Your task to perform on an android device: toggle notification dots Image 0: 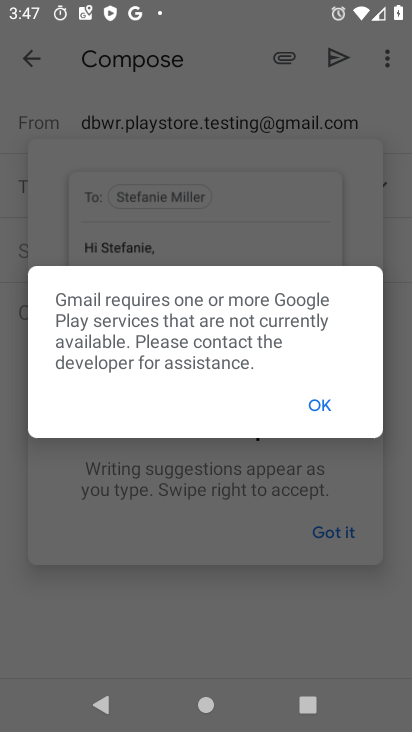
Step 0: press home button
Your task to perform on an android device: toggle notification dots Image 1: 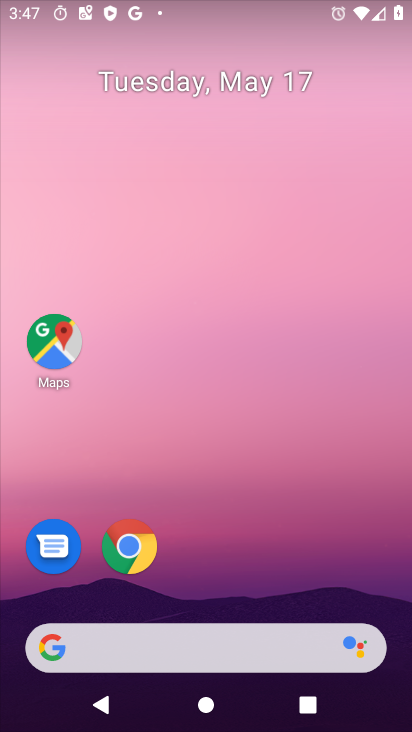
Step 1: click (411, 353)
Your task to perform on an android device: toggle notification dots Image 2: 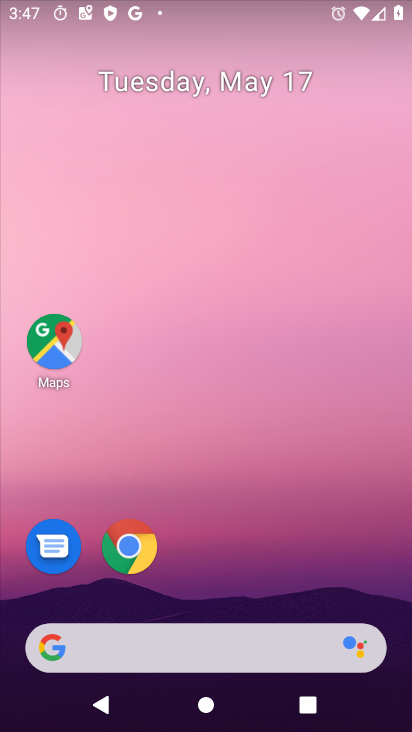
Step 2: drag from (391, 698) to (404, 333)
Your task to perform on an android device: toggle notification dots Image 3: 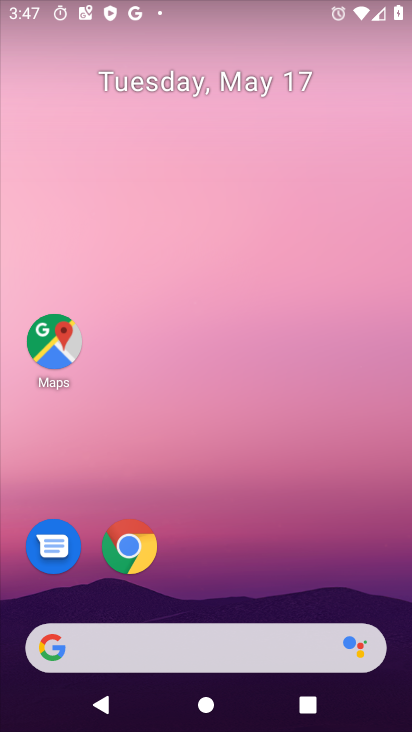
Step 3: drag from (404, 665) to (393, 408)
Your task to perform on an android device: toggle notification dots Image 4: 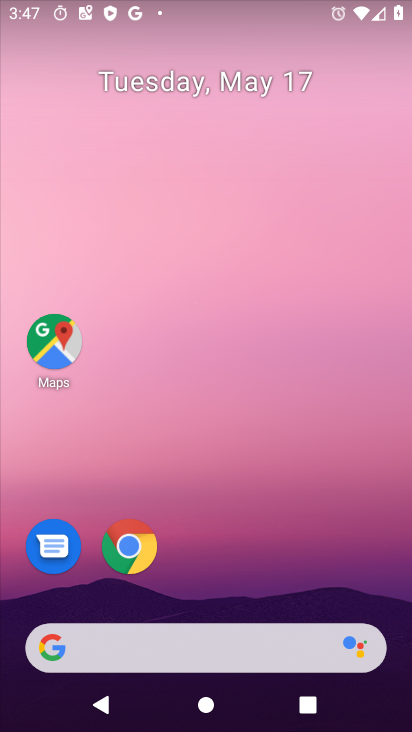
Step 4: drag from (404, 606) to (401, 261)
Your task to perform on an android device: toggle notification dots Image 5: 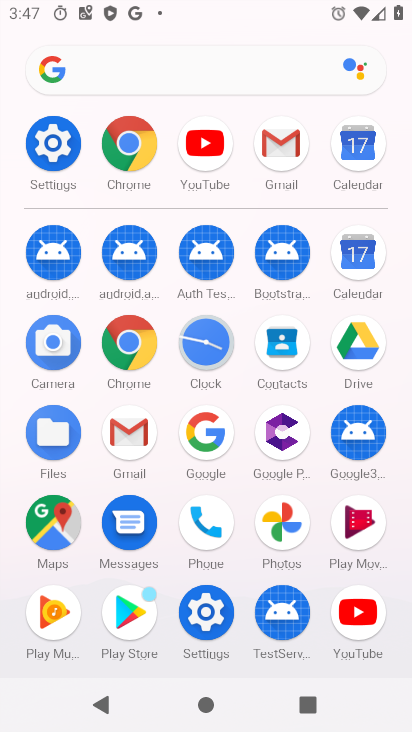
Step 5: click (58, 139)
Your task to perform on an android device: toggle notification dots Image 6: 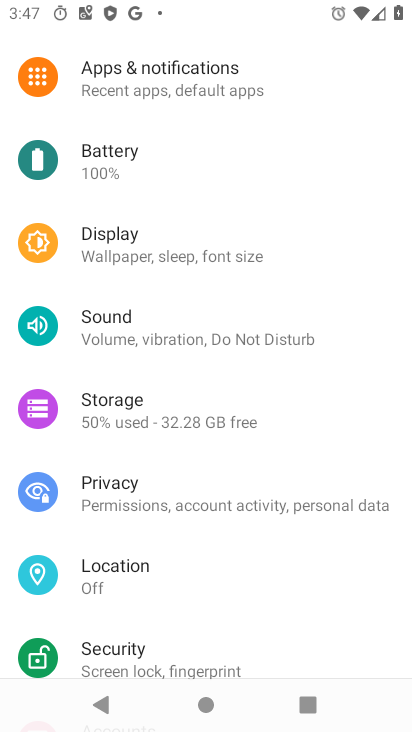
Step 6: click (141, 88)
Your task to perform on an android device: toggle notification dots Image 7: 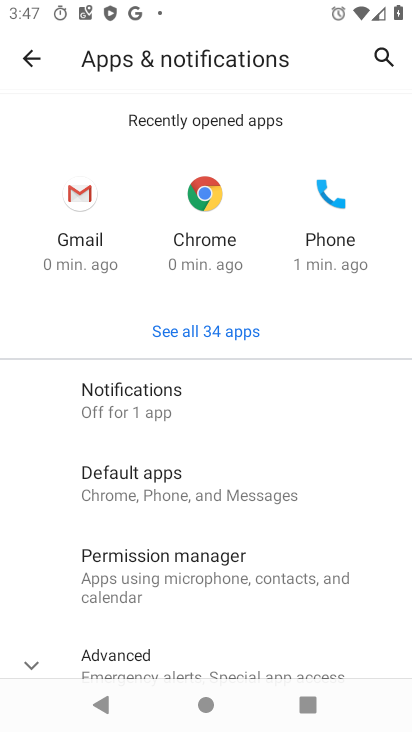
Step 7: click (114, 401)
Your task to perform on an android device: toggle notification dots Image 8: 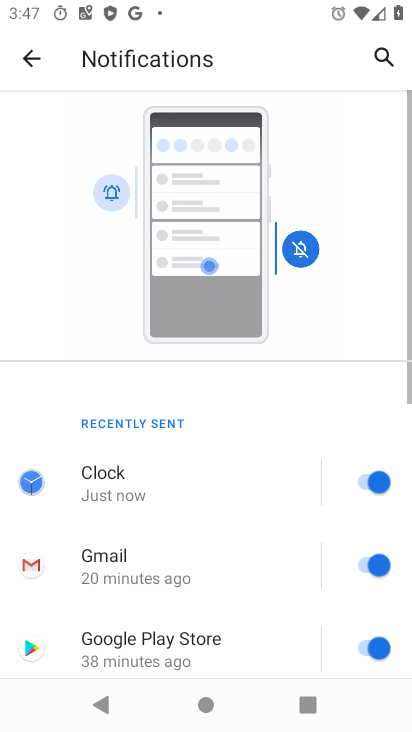
Step 8: drag from (291, 565) to (292, 201)
Your task to perform on an android device: toggle notification dots Image 9: 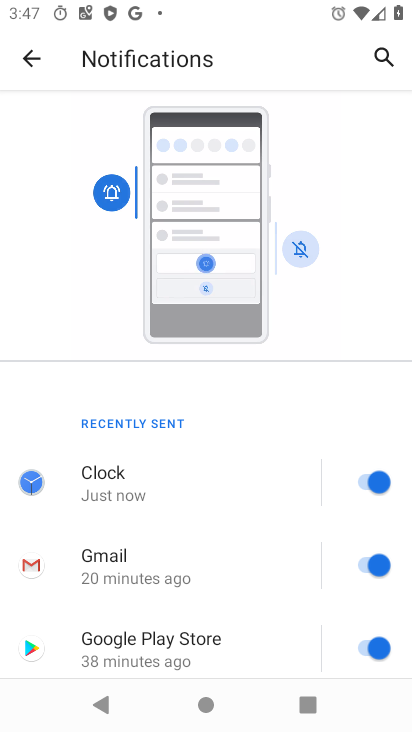
Step 9: drag from (249, 653) to (237, 281)
Your task to perform on an android device: toggle notification dots Image 10: 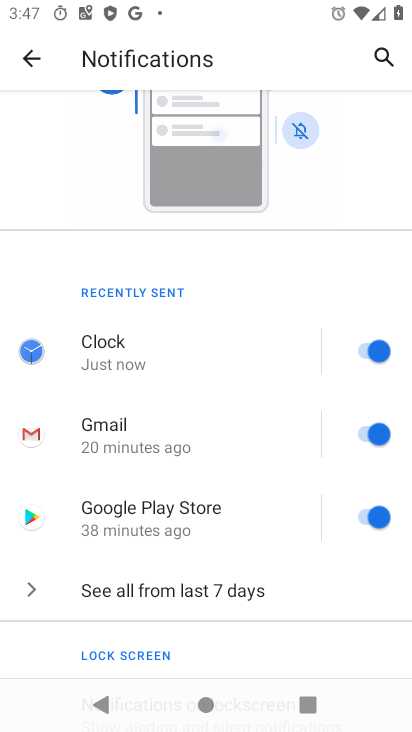
Step 10: drag from (261, 640) to (240, 369)
Your task to perform on an android device: toggle notification dots Image 11: 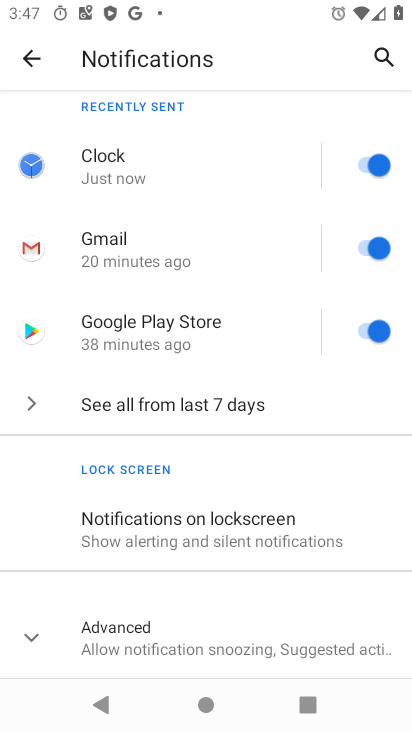
Step 11: click (87, 637)
Your task to perform on an android device: toggle notification dots Image 12: 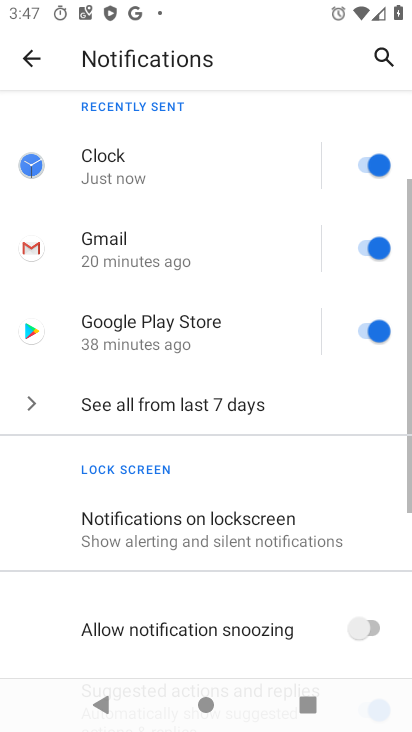
Step 12: drag from (281, 614) to (272, 282)
Your task to perform on an android device: toggle notification dots Image 13: 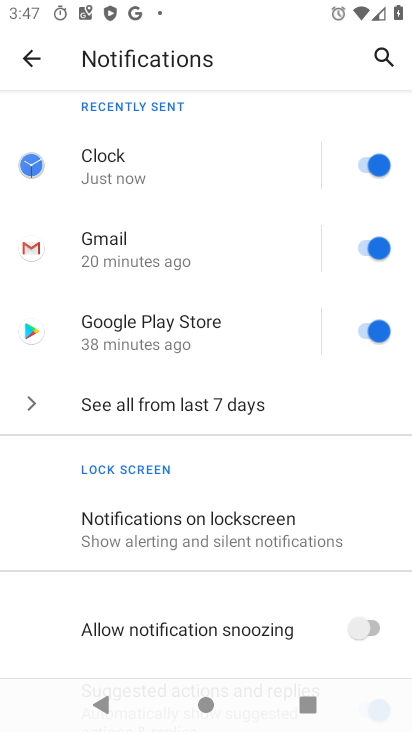
Step 13: drag from (250, 591) to (270, 225)
Your task to perform on an android device: toggle notification dots Image 14: 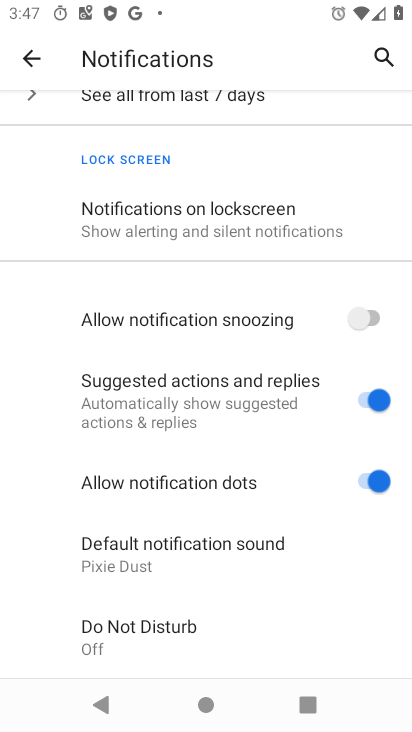
Step 14: click (358, 482)
Your task to perform on an android device: toggle notification dots Image 15: 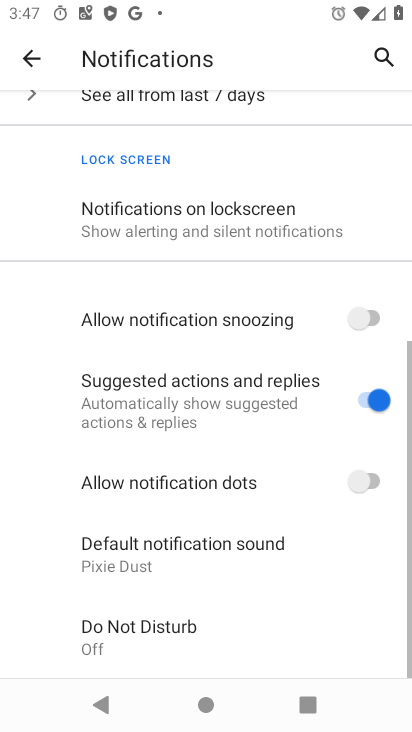
Step 15: task complete